Your task to perform on an android device: What is the recent news? Image 0: 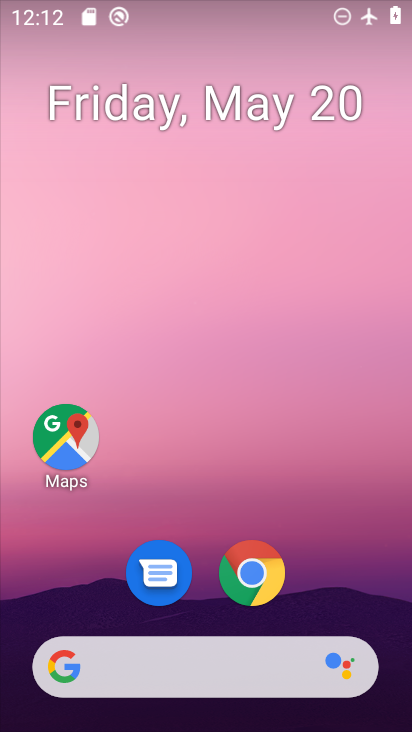
Step 0: drag from (5, 306) to (360, 322)
Your task to perform on an android device: What is the recent news? Image 1: 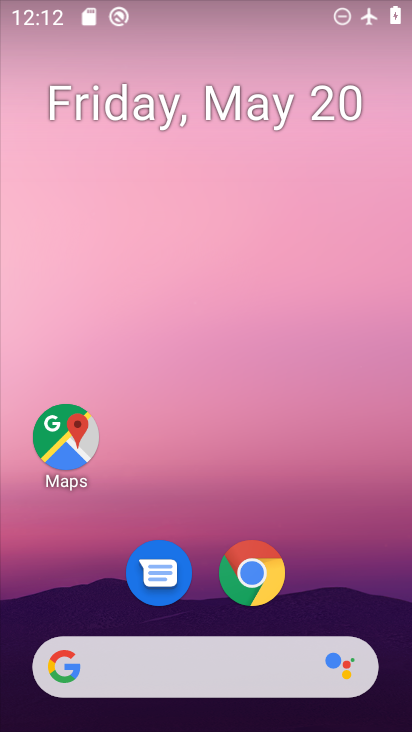
Step 1: task complete